Your task to perform on an android device: Open wifi settings Image 0: 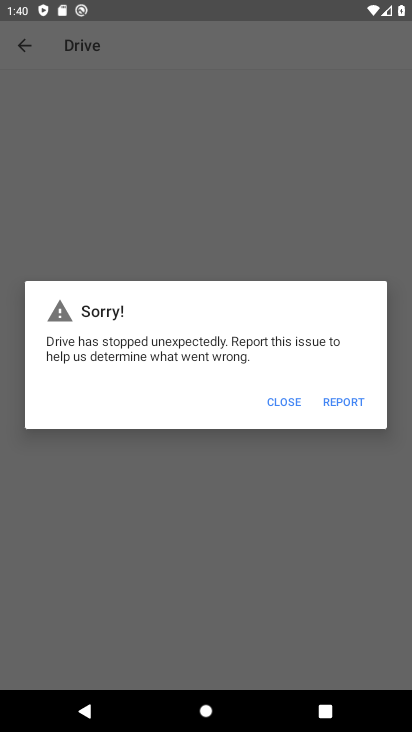
Step 0: press home button
Your task to perform on an android device: Open wifi settings Image 1: 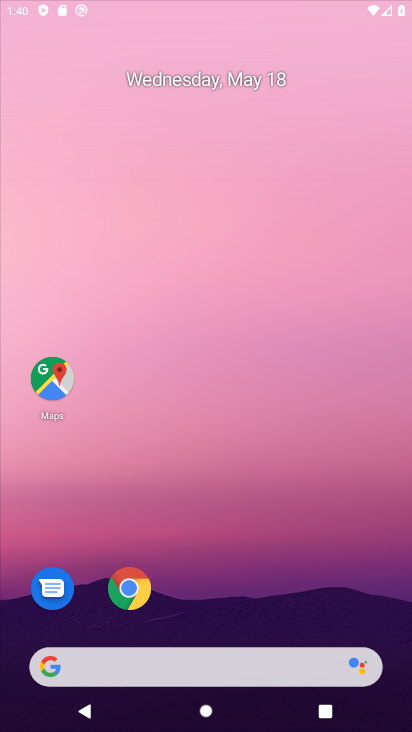
Step 1: drag from (240, 633) to (344, 117)
Your task to perform on an android device: Open wifi settings Image 2: 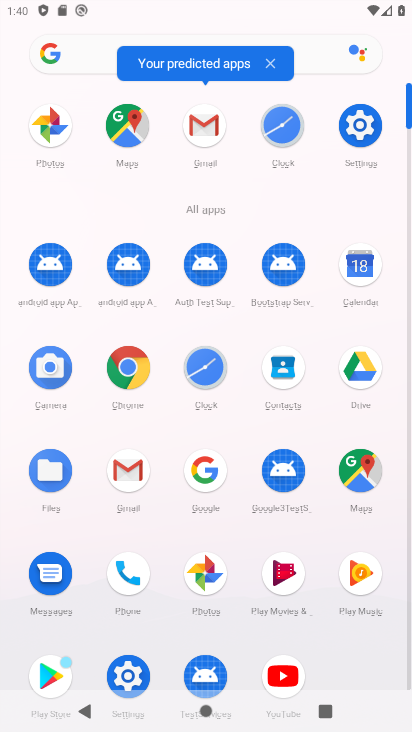
Step 2: click (125, 665)
Your task to perform on an android device: Open wifi settings Image 3: 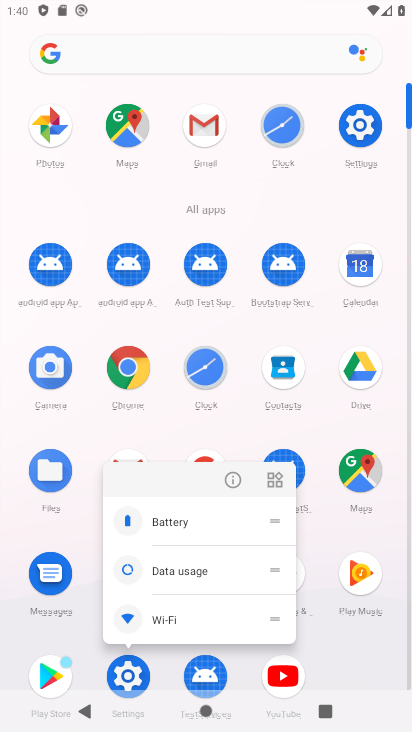
Step 3: click (128, 666)
Your task to perform on an android device: Open wifi settings Image 4: 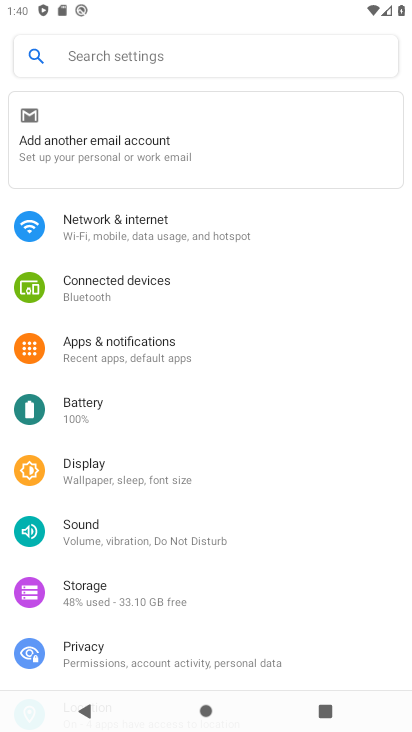
Step 4: click (160, 234)
Your task to perform on an android device: Open wifi settings Image 5: 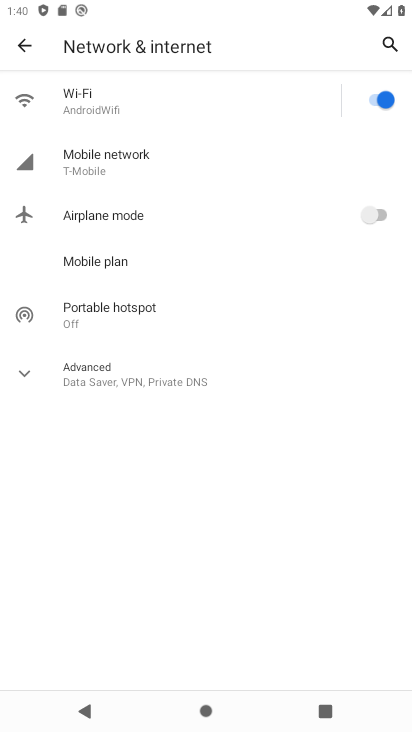
Step 5: click (151, 107)
Your task to perform on an android device: Open wifi settings Image 6: 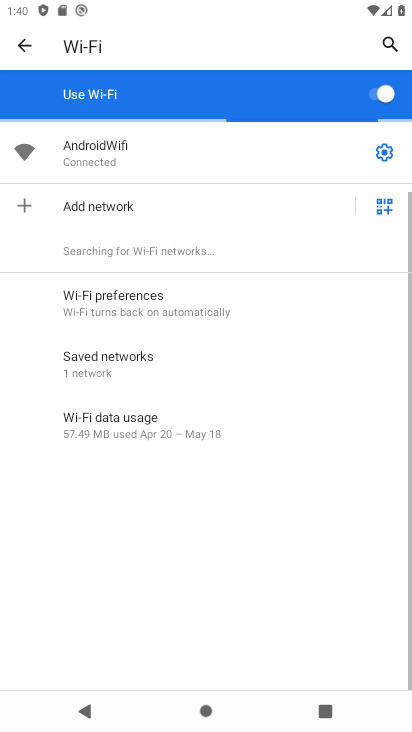
Step 6: task complete